Your task to perform on an android device: turn on priority inbox in the gmail app Image 0: 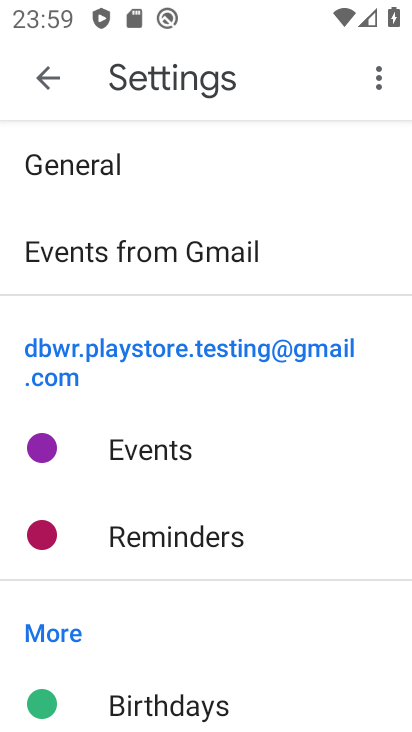
Step 0: press home button
Your task to perform on an android device: turn on priority inbox in the gmail app Image 1: 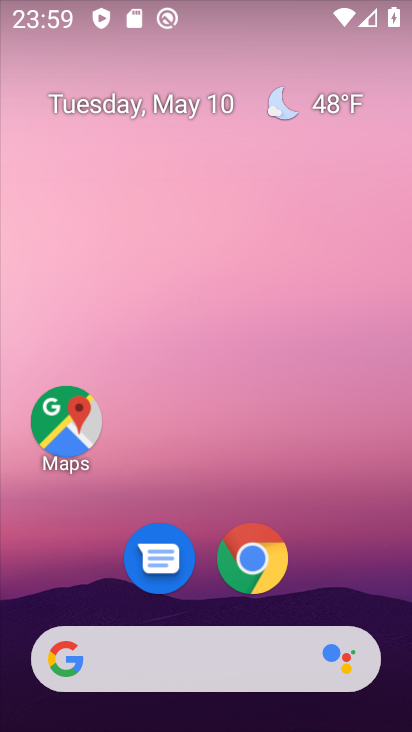
Step 1: drag from (353, 560) to (336, 191)
Your task to perform on an android device: turn on priority inbox in the gmail app Image 2: 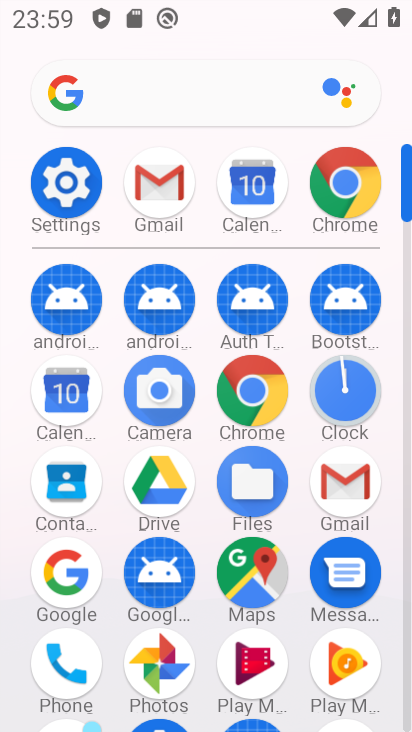
Step 2: click (348, 487)
Your task to perform on an android device: turn on priority inbox in the gmail app Image 3: 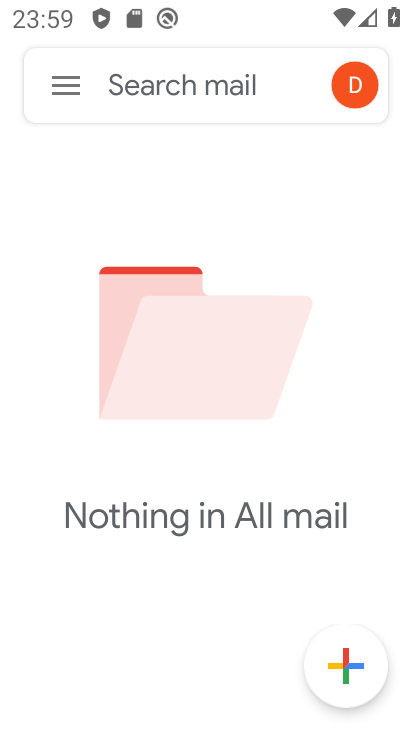
Step 3: click (60, 100)
Your task to perform on an android device: turn on priority inbox in the gmail app Image 4: 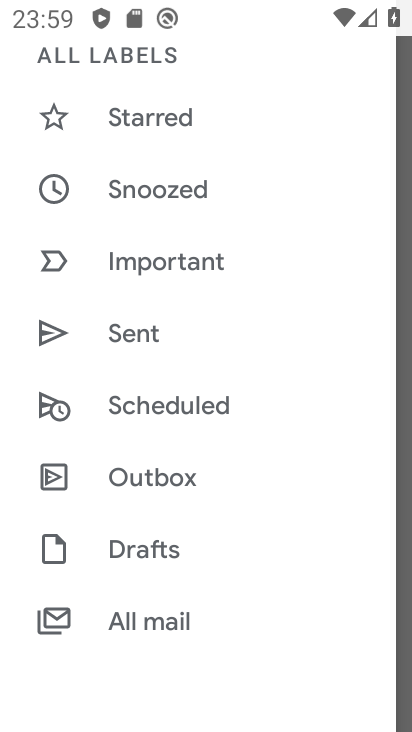
Step 4: drag from (263, 573) to (263, 254)
Your task to perform on an android device: turn on priority inbox in the gmail app Image 5: 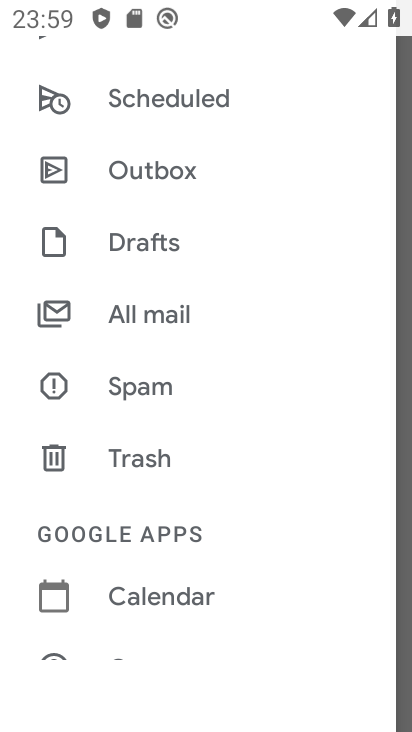
Step 5: drag from (239, 606) to (261, 210)
Your task to perform on an android device: turn on priority inbox in the gmail app Image 6: 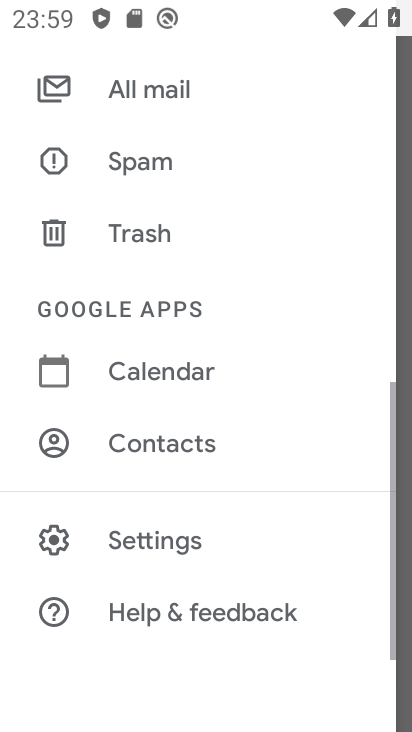
Step 6: click (179, 524)
Your task to perform on an android device: turn on priority inbox in the gmail app Image 7: 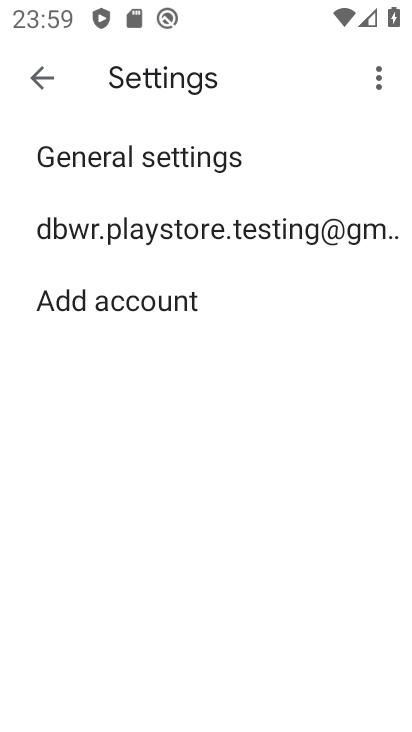
Step 7: click (137, 249)
Your task to perform on an android device: turn on priority inbox in the gmail app Image 8: 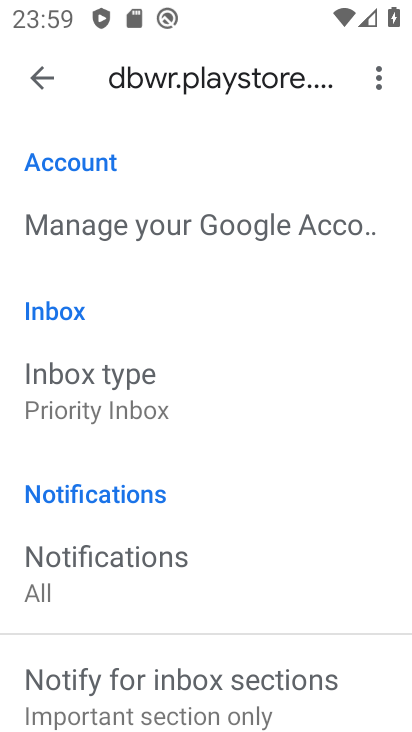
Step 8: click (119, 396)
Your task to perform on an android device: turn on priority inbox in the gmail app Image 9: 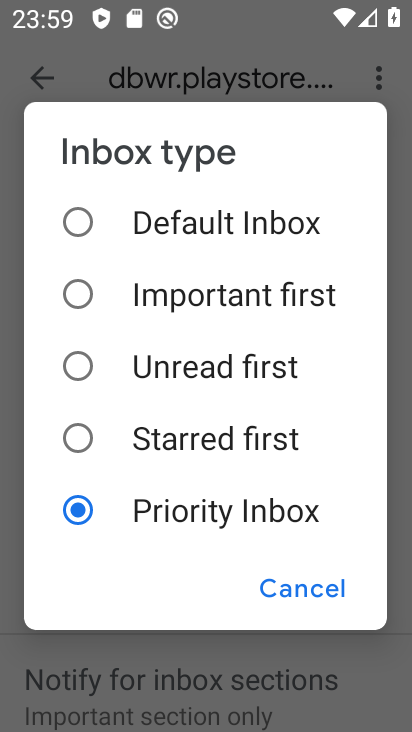
Step 9: task complete